Your task to perform on an android device: turn on translation in the chrome app Image 0: 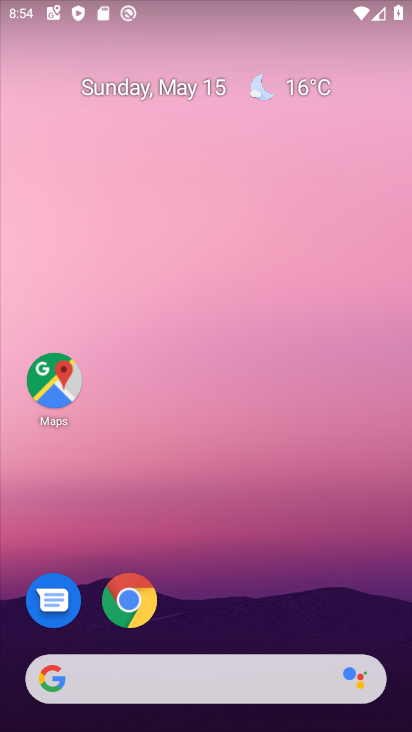
Step 0: click (127, 598)
Your task to perform on an android device: turn on translation in the chrome app Image 1: 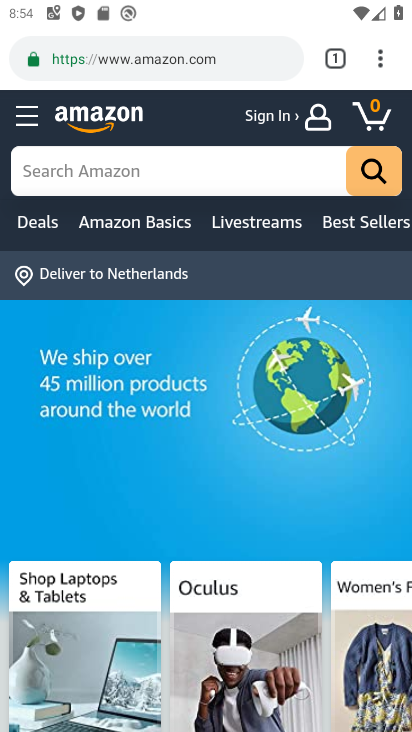
Step 1: click (372, 56)
Your task to perform on an android device: turn on translation in the chrome app Image 2: 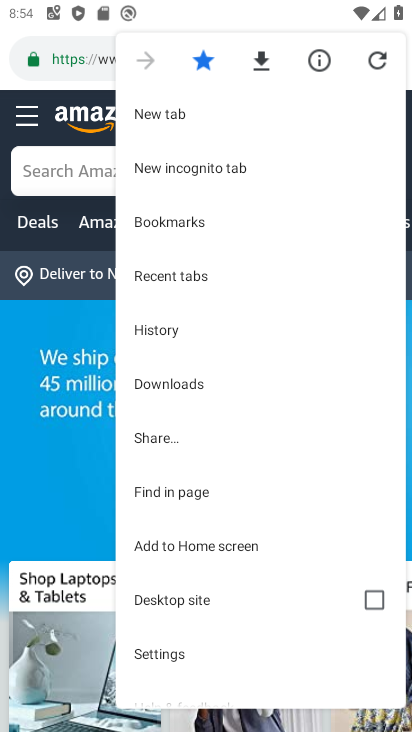
Step 2: click (186, 657)
Your task to perform on an android device: turn on translation in the chrome app Image 3: 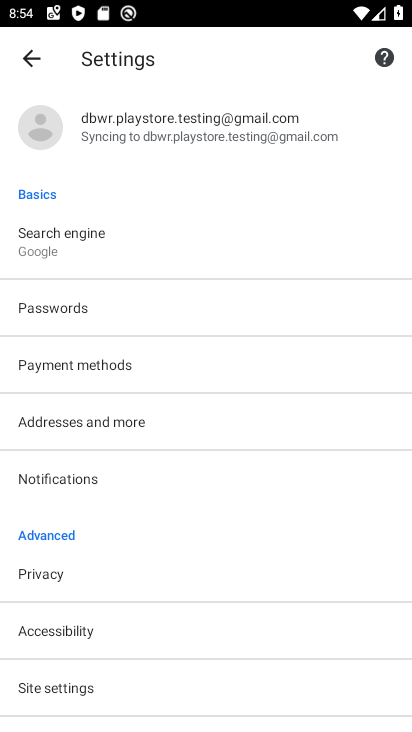
Step 3: drag from (267, 631) to (268, 160)
Your task to perform on an android device: turn on translation in the chrome app Image 4: 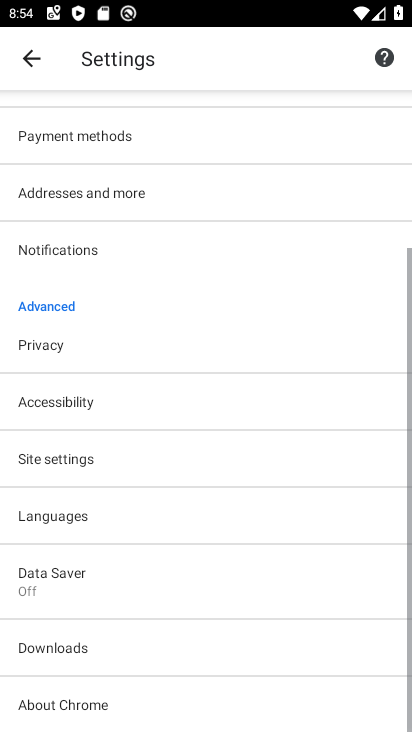
Step 4: click (89, 519)
Your task to perform on an android device: turn on translation in the chrome app Image 5: 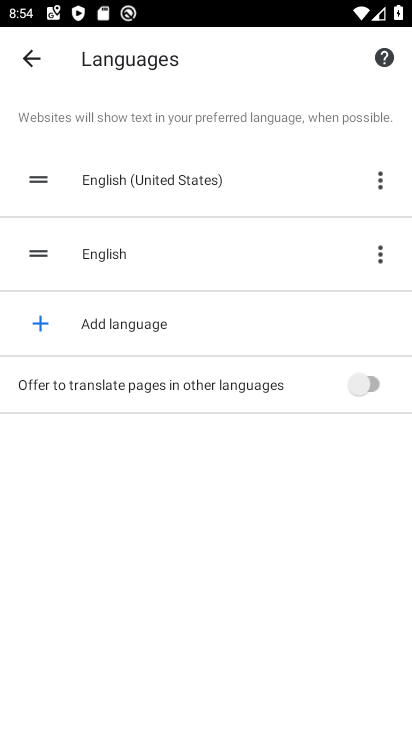
Step 5: click (358, 378)
Your task to perform on an android device: turn on translation in the chrome app Image 6: 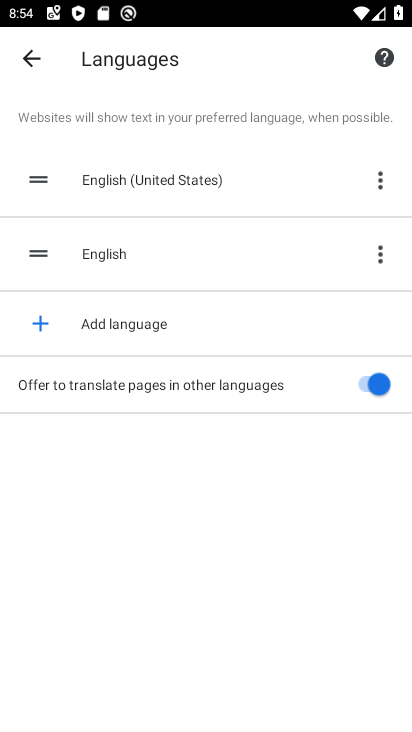
Step 6: task complete